Your task to perform on an android device: Open Google Maps and go to "Timeline" Image 0: 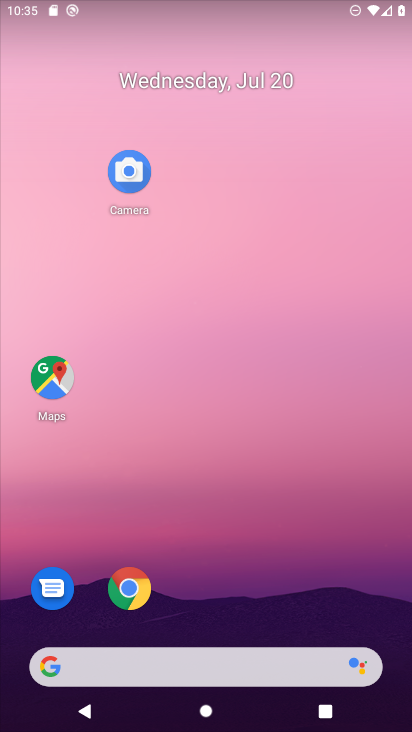
Step 0: press home button
Your task to perform on an android device: Open Google Maps and go to "Timeline" Image 1: 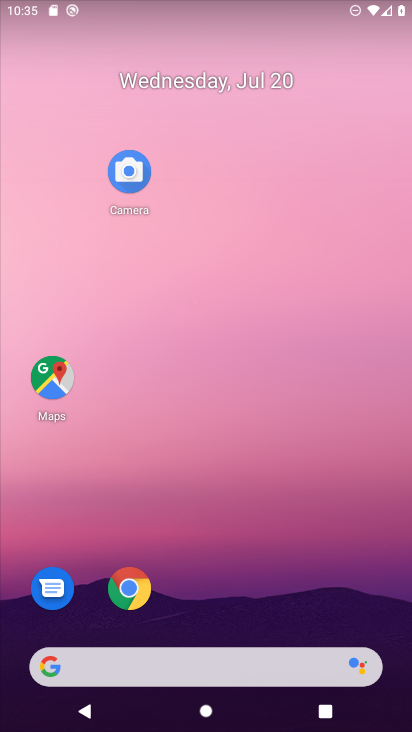
Step 1: click (53, 378)
Your task to perform on an android device: Open Google Maps and go to "Timeline" Image 2: 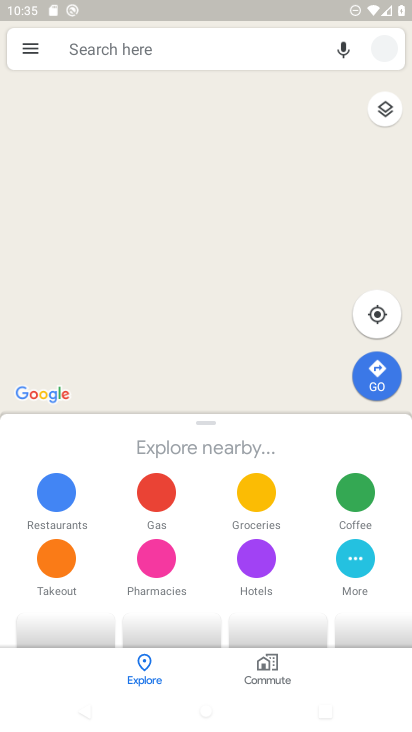
Step 2: click (32, 47)
Your task to perform on an android device: Open Google Maps and go to "Timeline" Image 3: 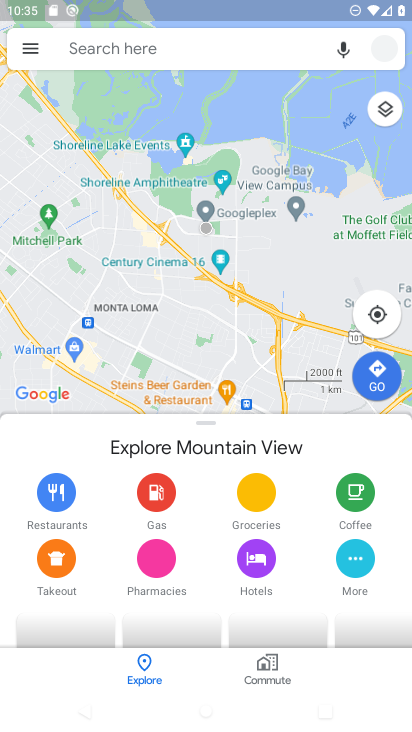
Step 3: click (34, 45)
Your task to perform on an android device: Open Google Maps and go to "Timeline" Image 4: 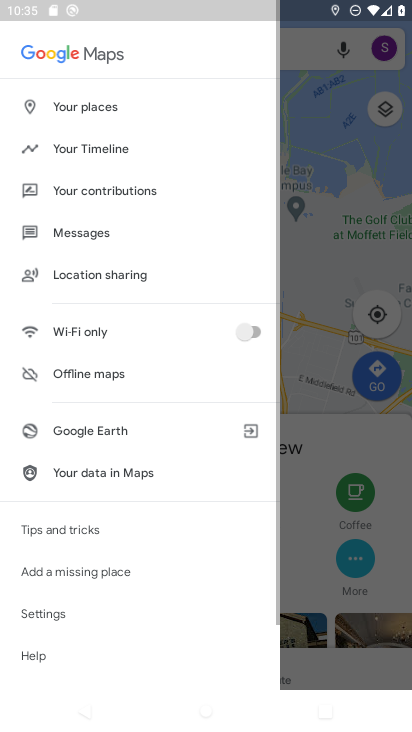
Step 4: click (88, 140)
Your task to perform on an android device: Open Google Maps and go to "Timeline" Image 5: 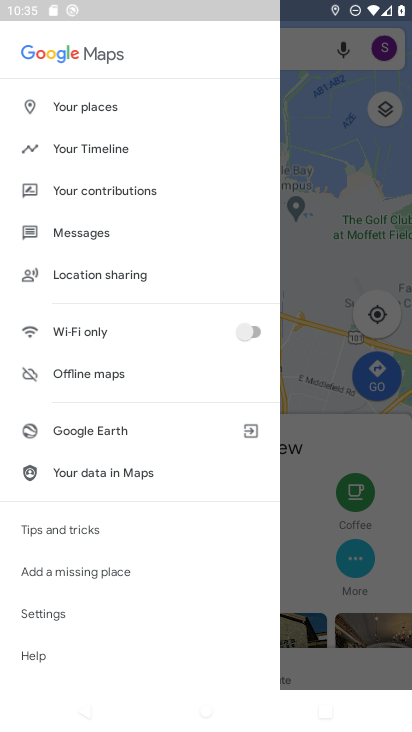
Step 5: click (82, 146)
Your task to perform on an android device: Open Google Maps and go to "Timeline" Image 6: 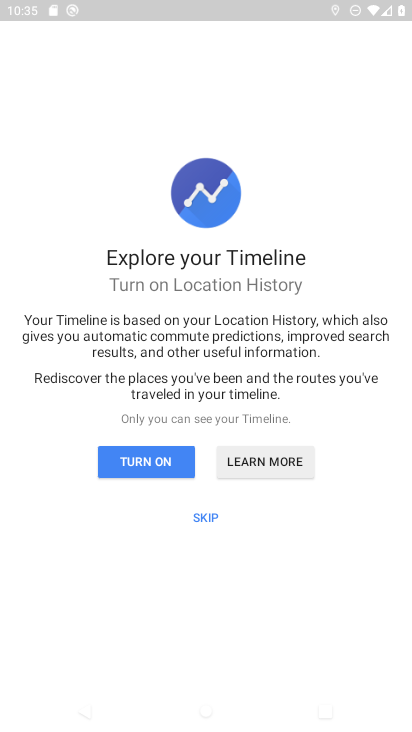
Step 6: click (204, 515)
Your task to perform on an android device: Open Google Maps and go to "Timeline" Image 7: 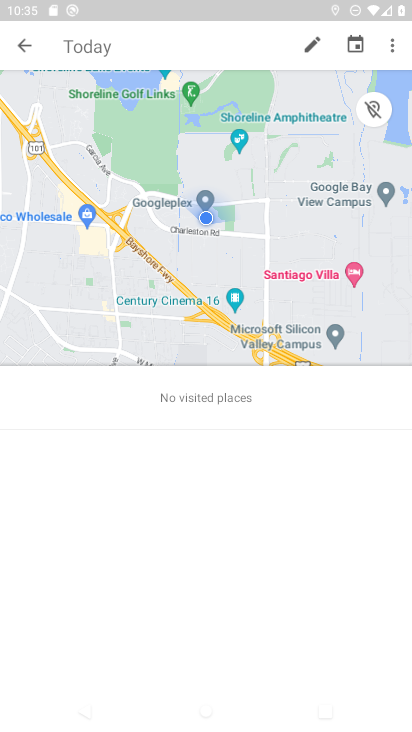
Step 7: task complete